Your task to perform on an android device: change notification settings in the gmail app Image 0: 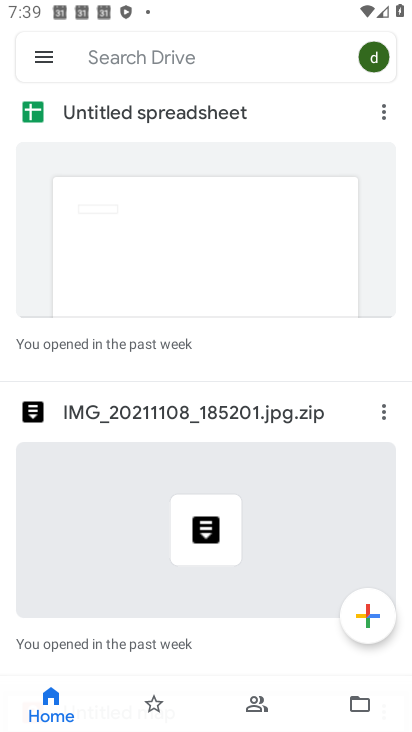
Step 0: press home button
Your task to perform on an android device: change notification settings in the gmail app Image 1: 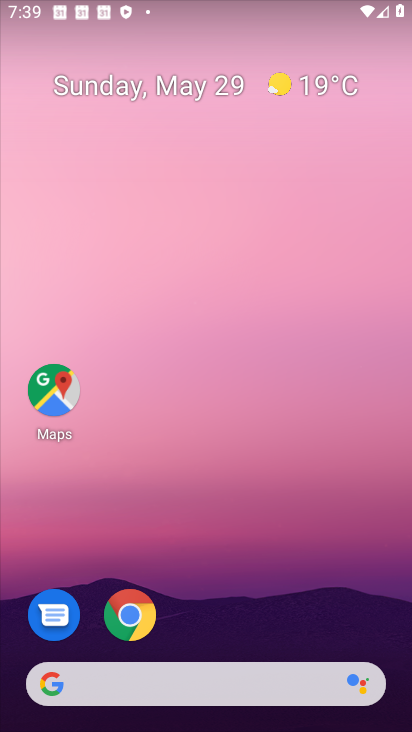
Step 1: drag from (116, 728) to (181, 47)
Your task to perform on an android device: change notification settings in the gmail app Image 2: 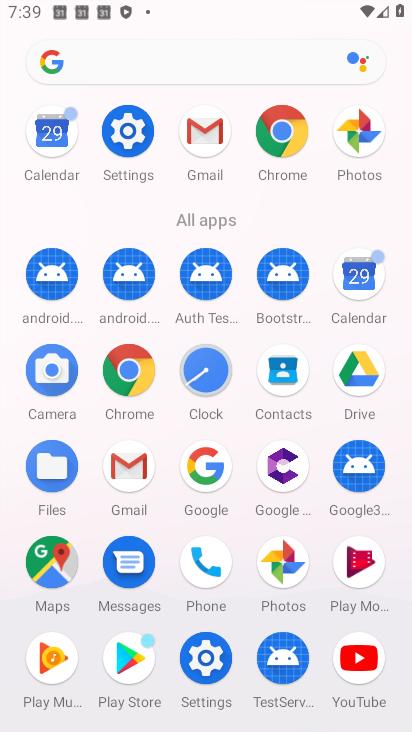
Step 2: click (186, 133)
Your task to perform on an android device: change notification settings in the gmail app Image 3: 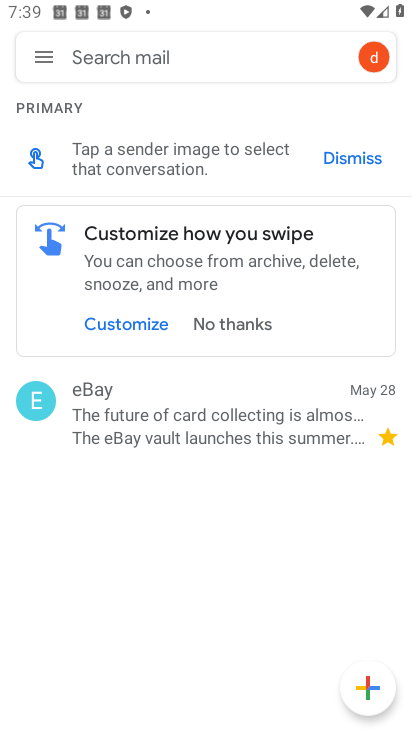
Step 3: click (30, 63)
Your task to perform on an android device: change notification settings in the gmail app Image 4: 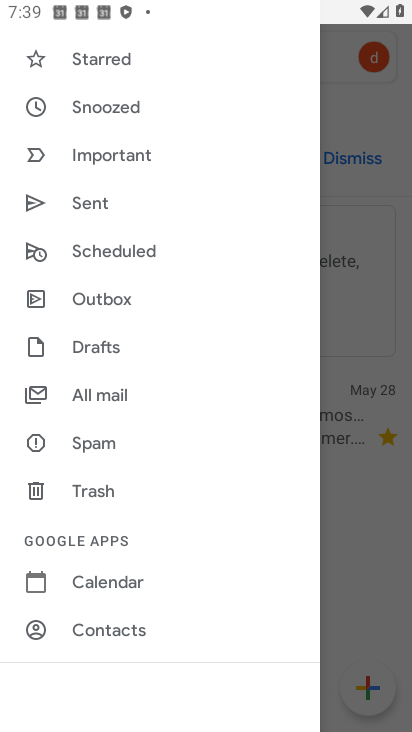
Step 4: drag from (256, 684) to (230, 242)
Your task to perform on an android device: change notification settings in the gmail app Image 5: 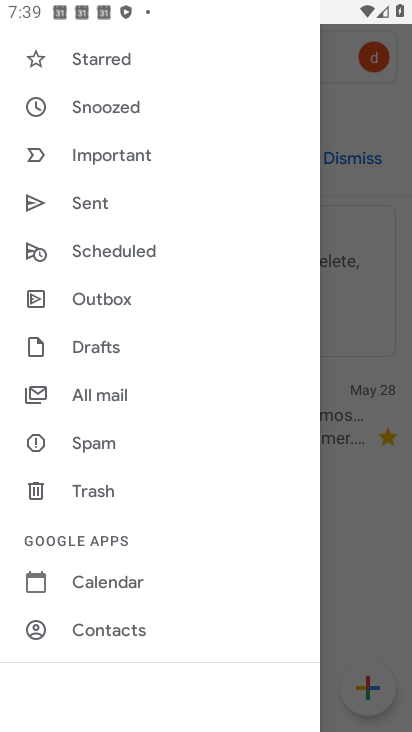
Step 5: drag from (172, 677) to (167, 323)
Your task to perform on an android device: change notification settings in the gmail app Image 6: 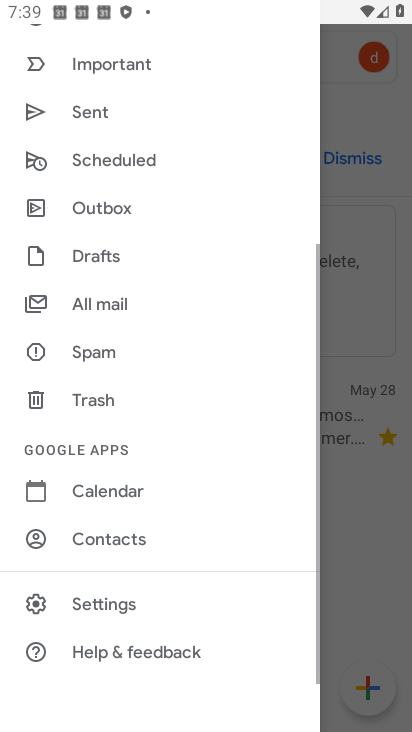
Step 6: click (116, 616)
Your task to perform on an android device: change notification settings in the gmail app Image 7: 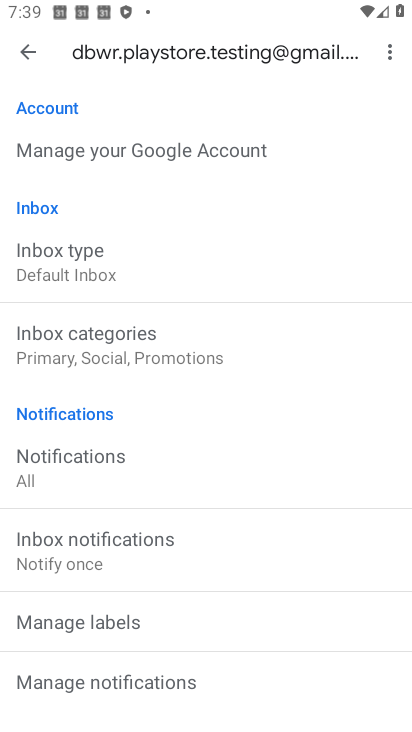
Step 7: click (148, 472)
Your task to perform on an android device: change notification settings in the gmail app Image 8: 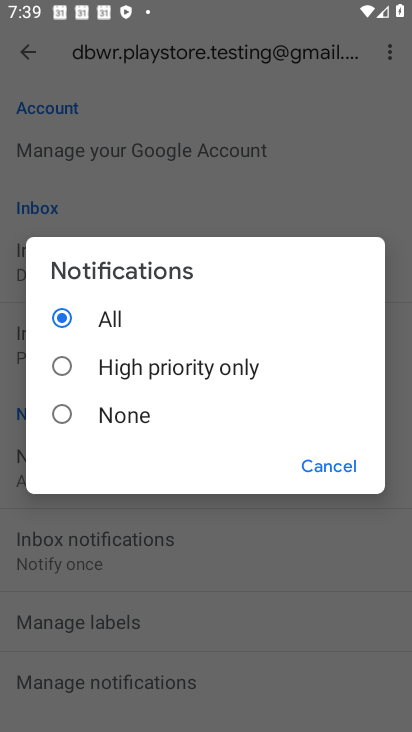
Step 8: click (79, 409)
Your task to perform on an android device: change notification settings in the gmail app Image 9: 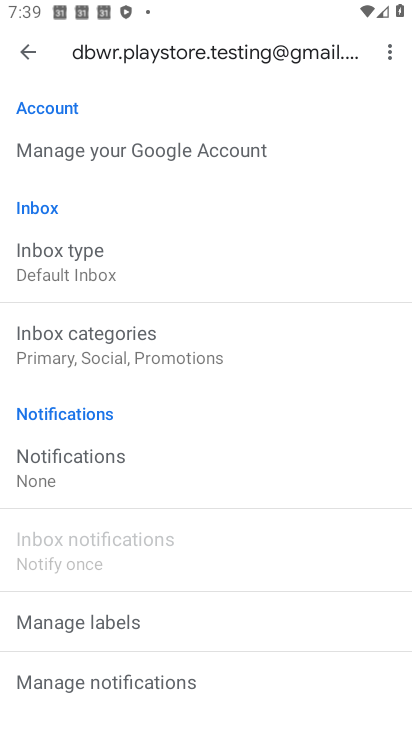
Step 9: task complete